Your task to perform on an android device: open a bookmark in the chrome app Image 0: 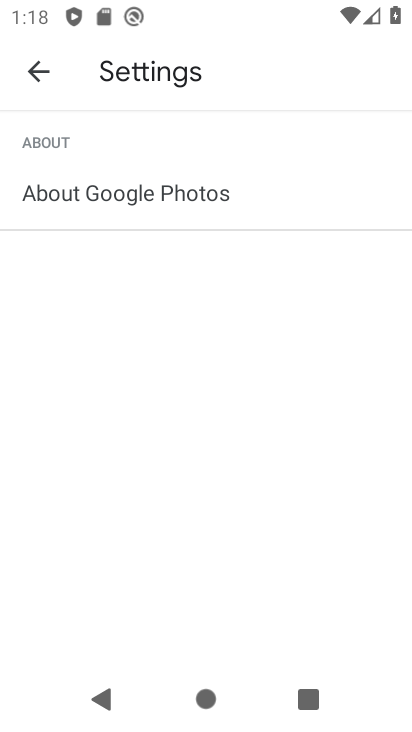
Step 0: press home button
Your task to perform on an android device: open a bookmark in the chrome app Image 1: 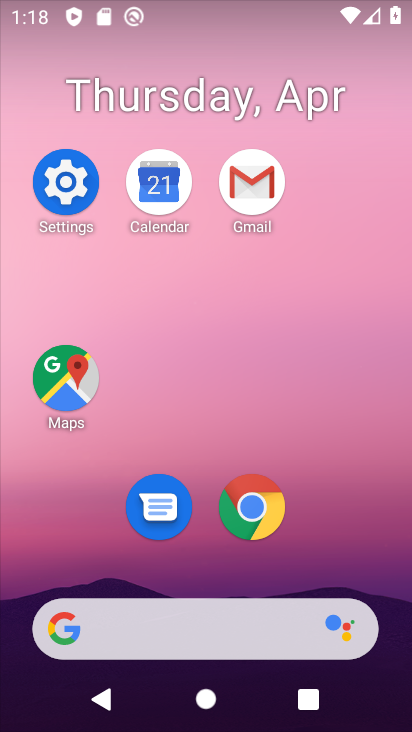
Step 1: click (263, 511)
Your task to perform on an android device: open a bookmark in the chrome app Image 2: 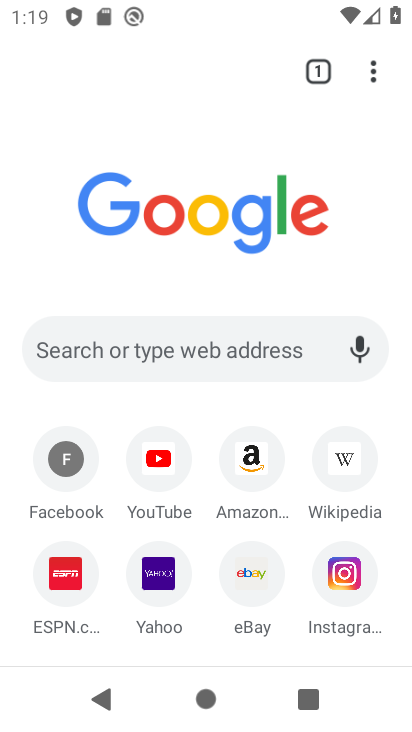
Step 2: click (372, 74)
Your task to perform on an android device: open a bookmark in the chrome app Image 3: 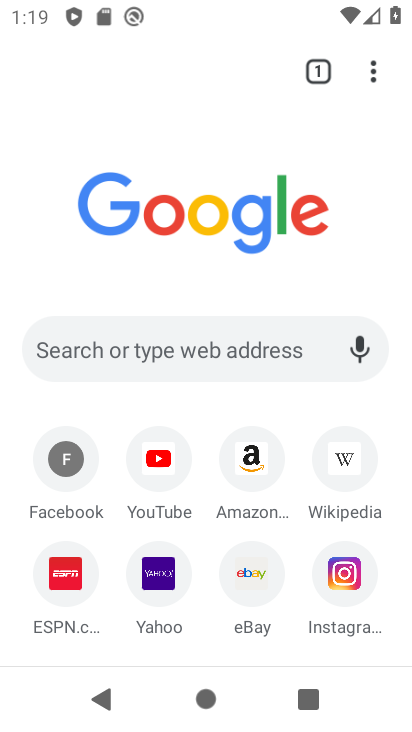
Step 3: click (378, 70)
Your task to perform on an android device: open a bookmark in the chrome app Image 4: 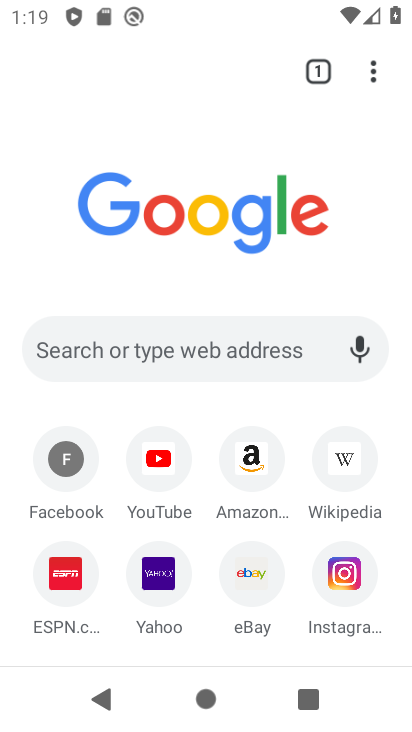
Step 4: click (378, 70)
Your task to perform on an android device: open a bookmark in the chrome app Image 5: 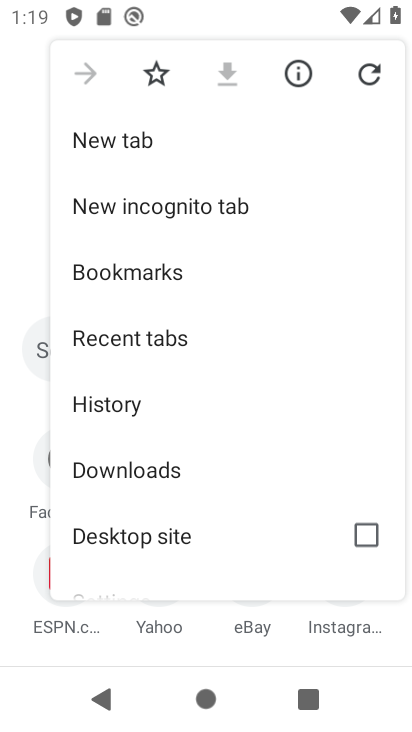
Step 5: click (217, 261)
Your task to perform on an android device: open a bookmark in the chrome app Image 6: 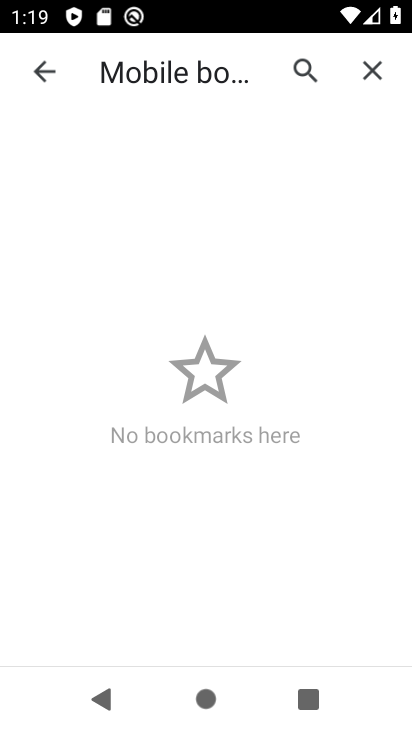
Step 6: task complete